Your task to perform on an android device: Go to ESPN.com Image 0: 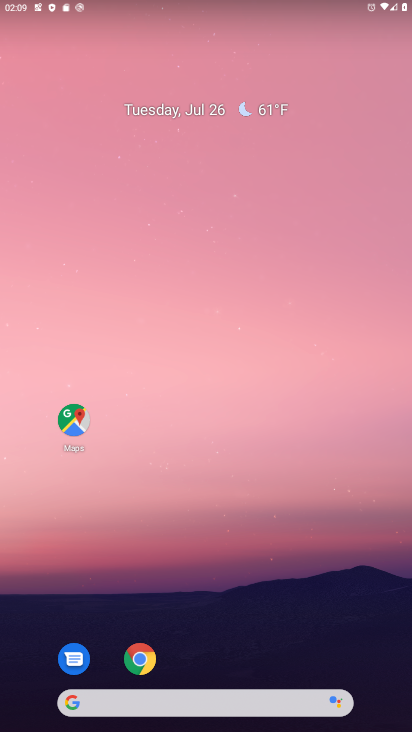
Step 0: drag from (324, 678) to (292, 126)
Your task to perform on an android device: Go to ESPN.com Image 1: 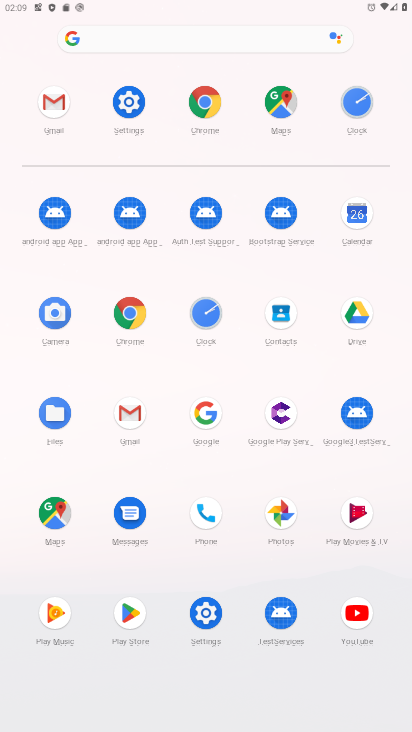
Step 1: click (205, 102)
Your task to perform on an android device: Go to ESPN.com Image 2: 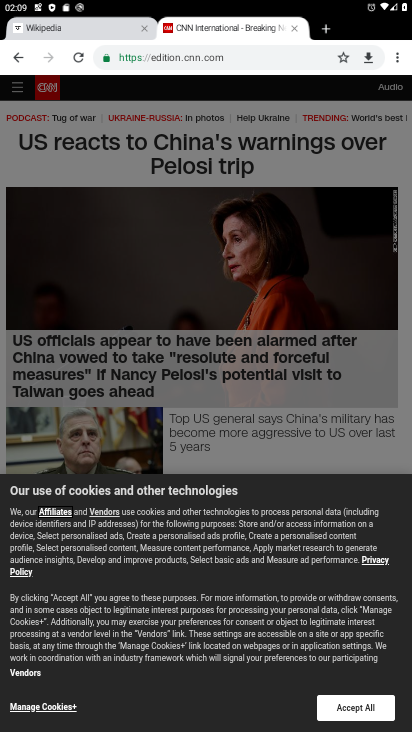
Step 2: click (217, 54)
Your task to perform on an android device: Go to ESPN.com Image 3: 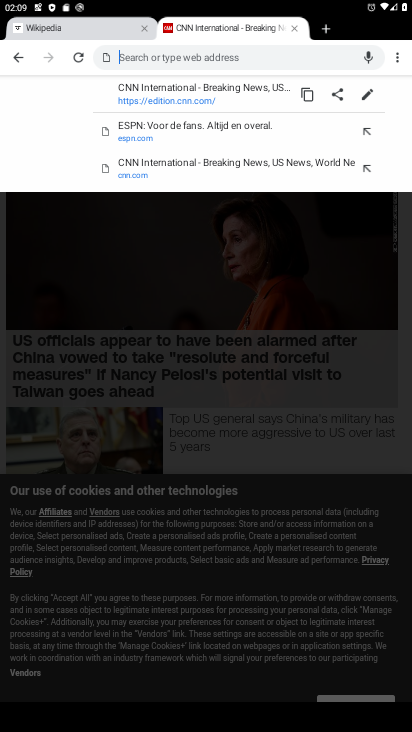
Step 3: click (194, 133)
Your task to perform on an android device: Go to ESPN.com Image 4: 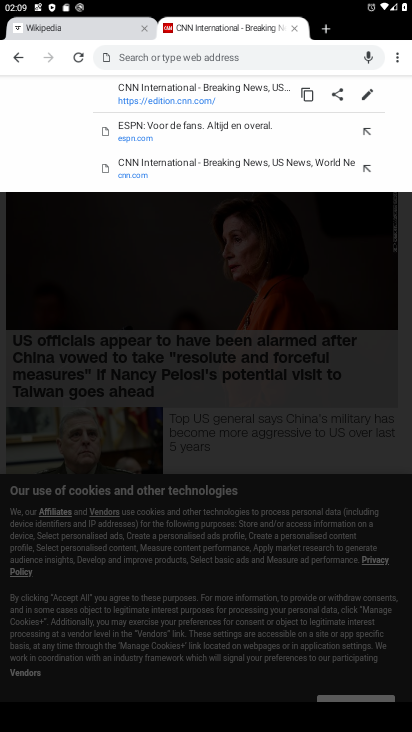
Step 4: click (151, 139)
Your task to perform on an android device: Go to ESPN.com Image 5: 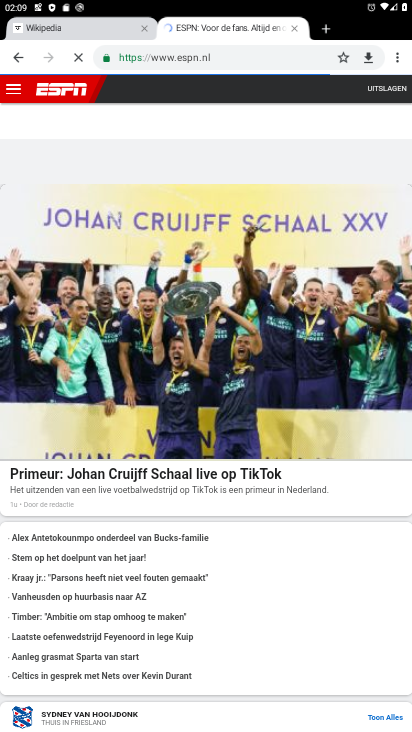
Step 5: task complete